Your task to perform on an android device: star an email in the gmail app Image 0: 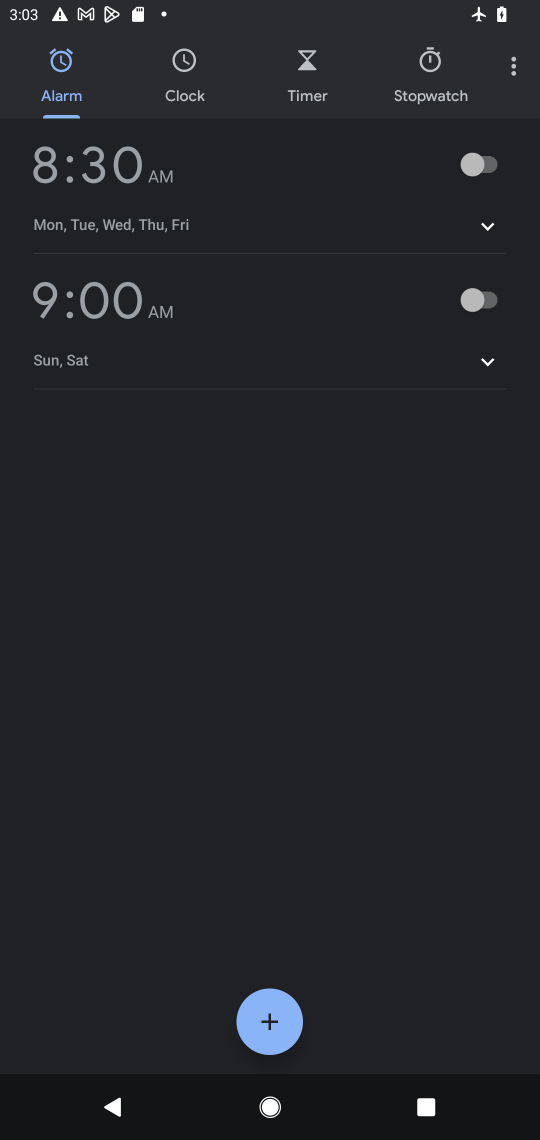
Step 0: press home button
Your task to perform on an android device: star an email in the gmail app Image 1: 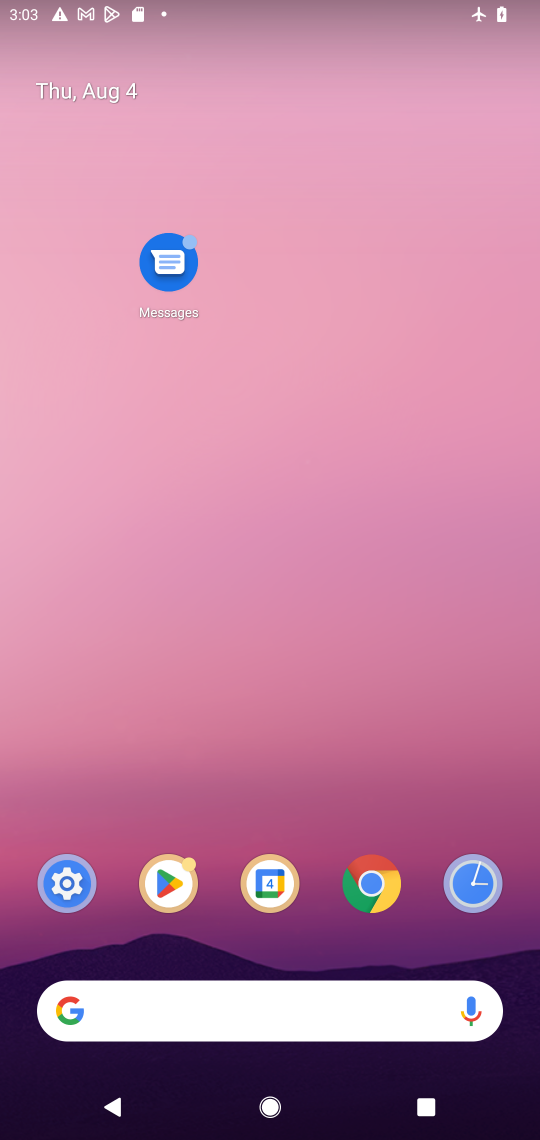
Step 1: drag from (294, 957) to (285, 129)
Your task to perform on an android device: star an email in the gmail app Image 2: 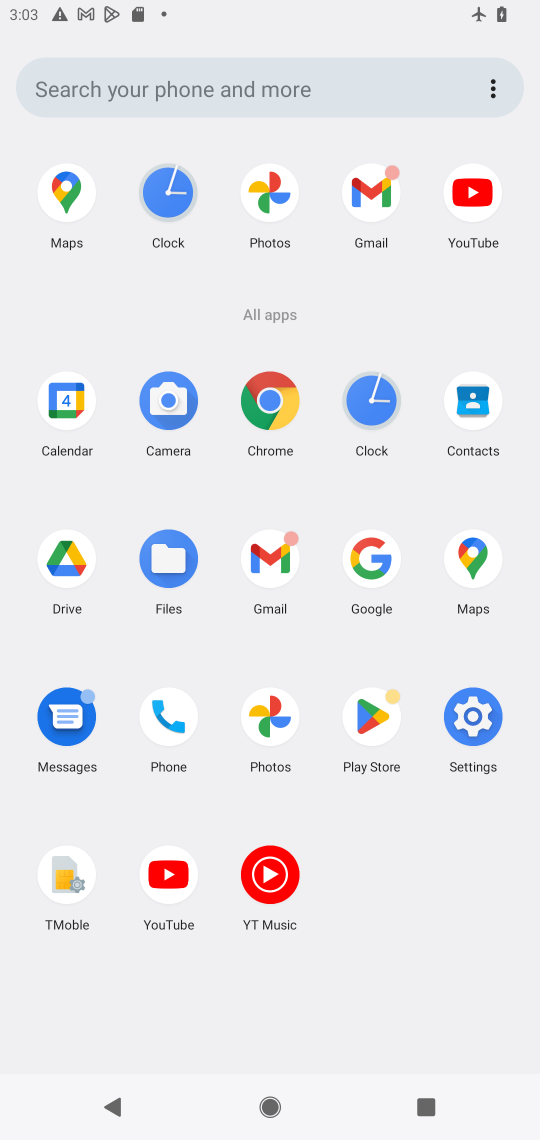
Step 2: click (256, 560)
Your task to perform on an android device: star an email in the gmail app Image 3: 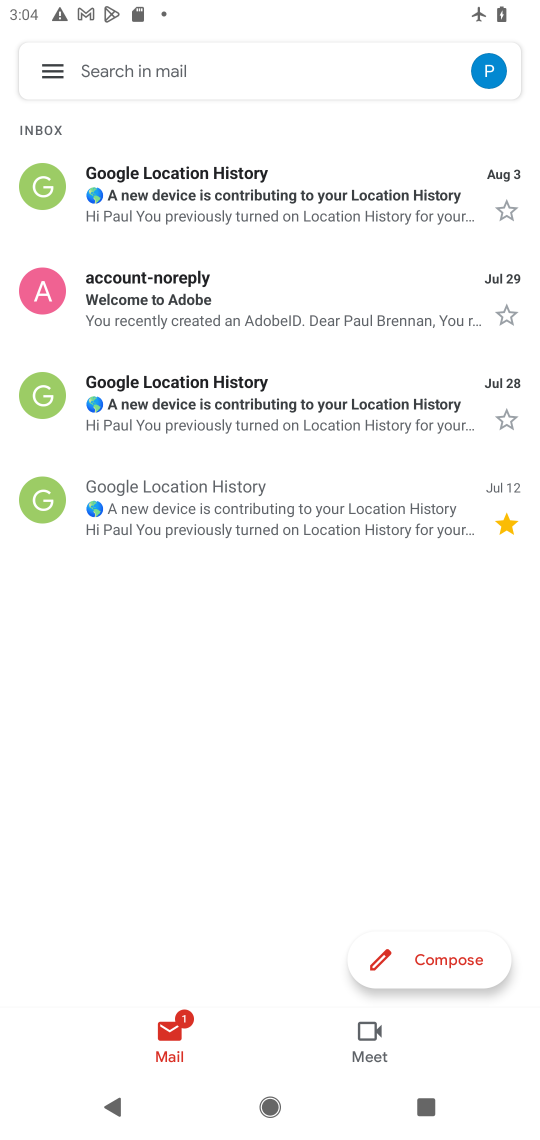
Step 3: click (504, 216)
Your task to perform on an android device: star an email in the gmail app Image 4: 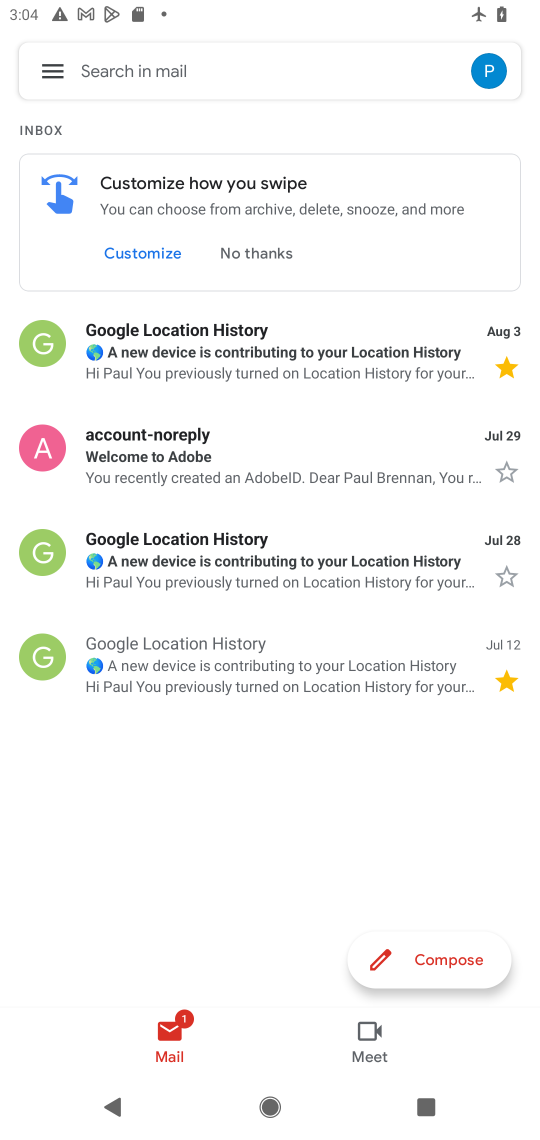
Step 4: task complete